Your task to perform on an android device: Go to Android settings Image 0: 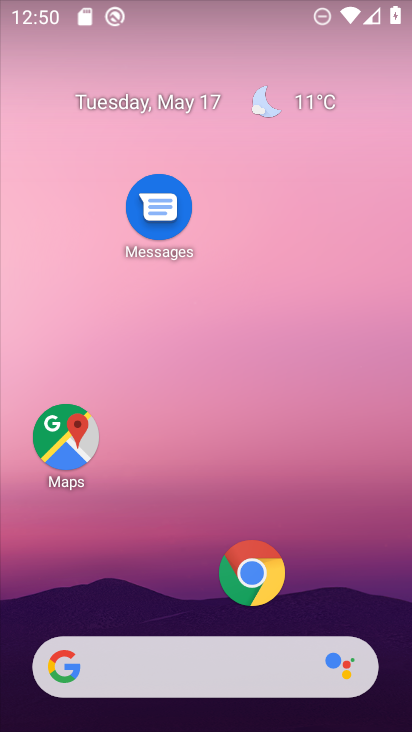
Step 0: drag from (194, 620) to (221, 93)
Your task to perform on an android device: Go to Android settings Image 1: 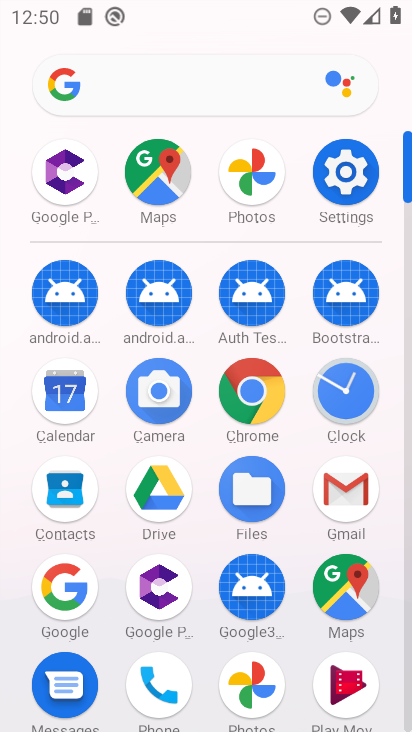
Step 1: click (343, 166)
Your task to perform on an android device: Go to Android settings Image 2: 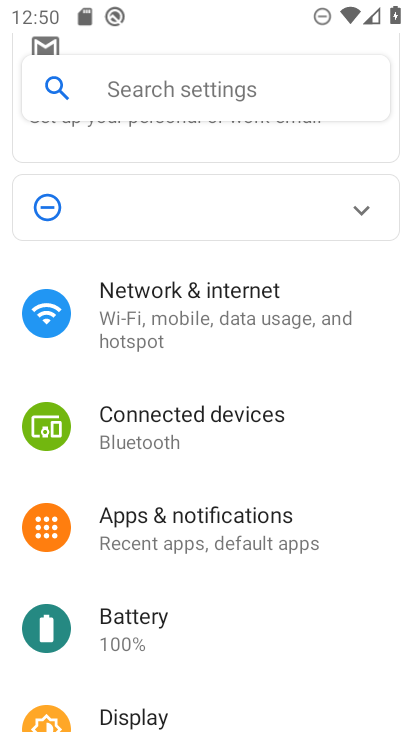
Step 2: drag from (186, 662) to (201, 278)
Your task to perform on an android device: Go to Android settings Image 3: 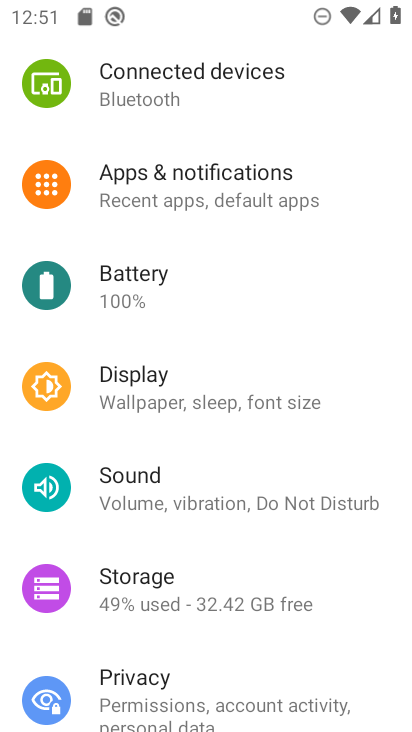
Step 3: drag from (222, 654) to (246, 119)
Your task to perform on an android device: Go to Android settings Image 4: 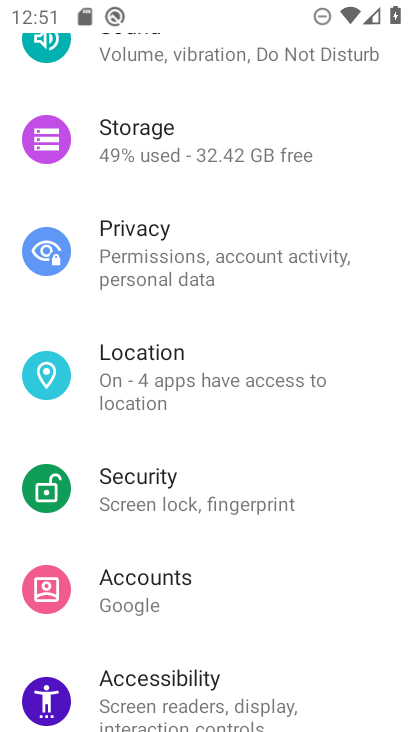
Step 4: drag from (223, 654) to (208, 139)
Your task to perform on an android device: Go to Android settings Image 5: 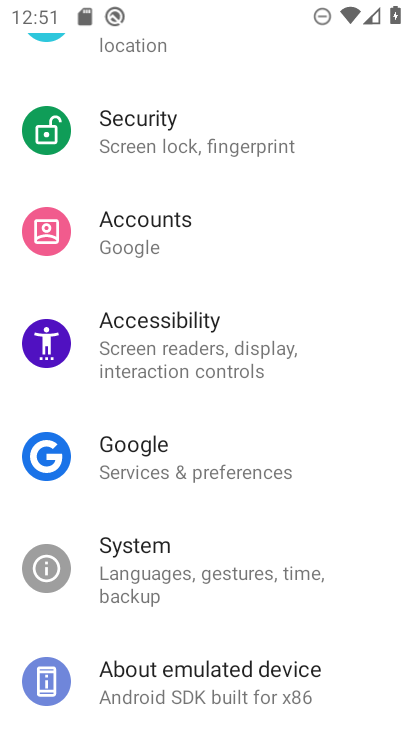
Step 5: drag from (206, 669) to (201, 217)
Your task to perform on an android device: Go to Android settings Image 6: 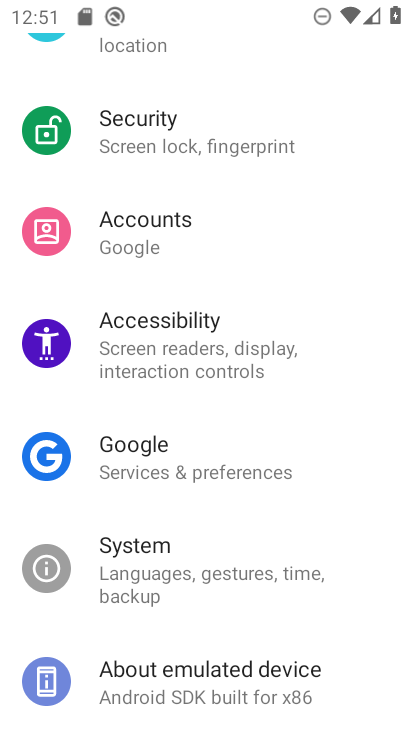
Step 6: click (182, 678)
Your task to perform on an android device: Go to Android settings Image 7: 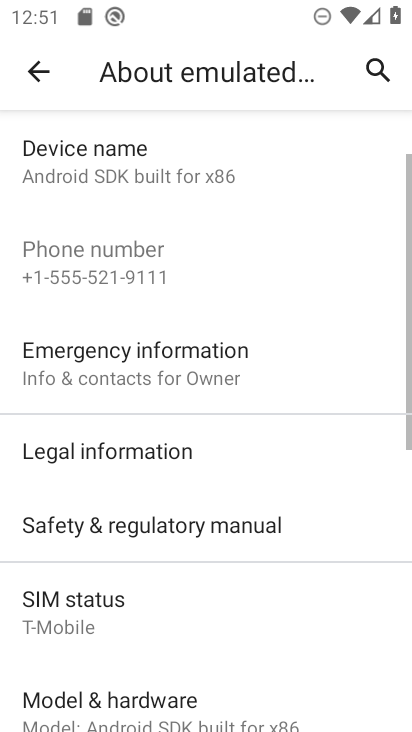
Step 7: drag from (159, 672) to (141, 200)
Your task to perform on an android device: Go to Android settings Image 8: 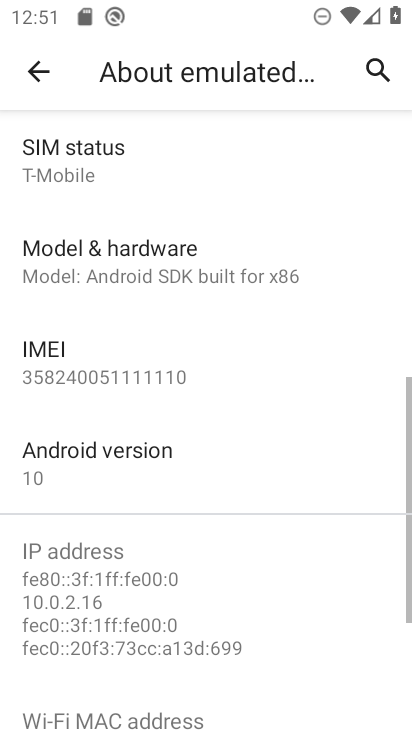
Step 8: click (124, 465)
Your task to perform on an android device: Go to Android settings Image 9: 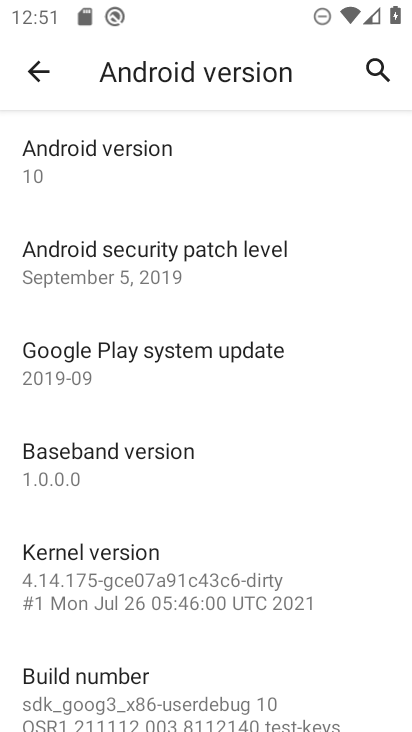
Step 9: task complete